Your task to perform on an android device: check out phone information Image 0: 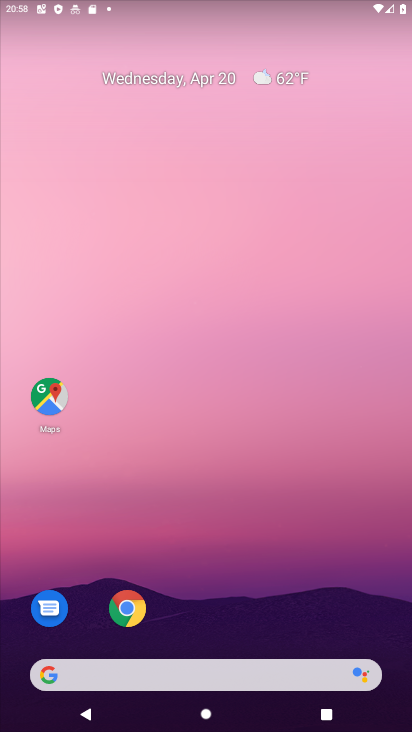
Step 0: click (251, 36)
Your task to perform on an android device: check out phone information Image 1: 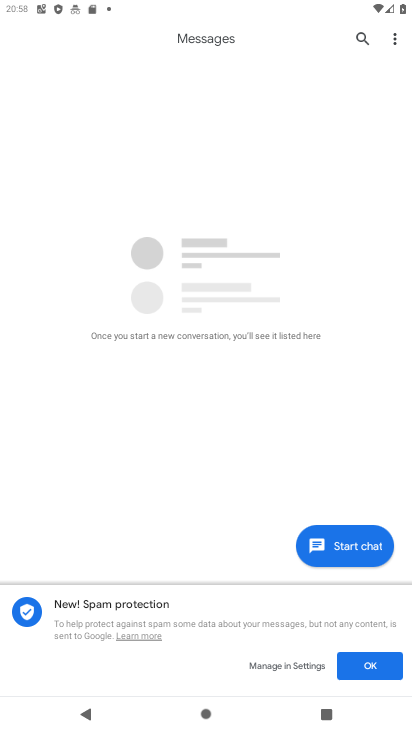
Step 1: press home button
Your task to perform on an android device: check out phone information Image 2: 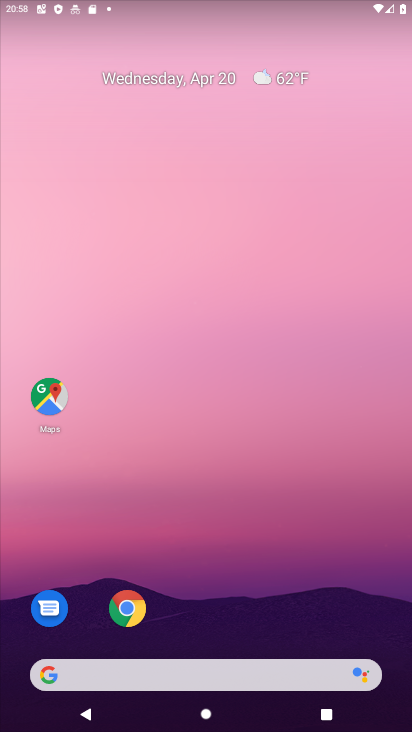
Step 2: drag from (277, 486) to (197, 155)
Your task to perform on an android device: check out phone information Image 3: 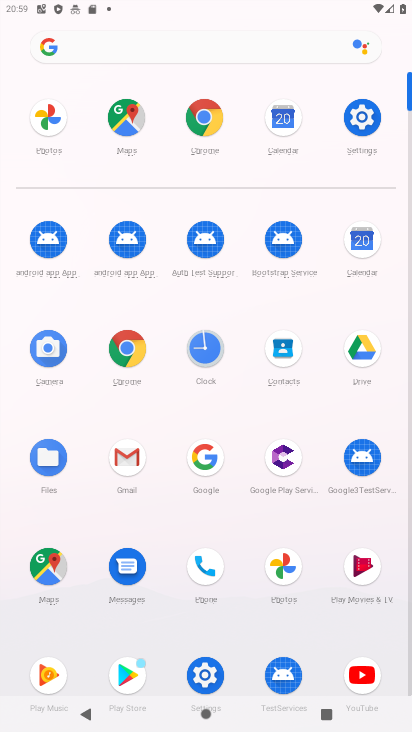
Step 3: click (205, 577)
Your task to perform on an android device: check out phone information Image 4: 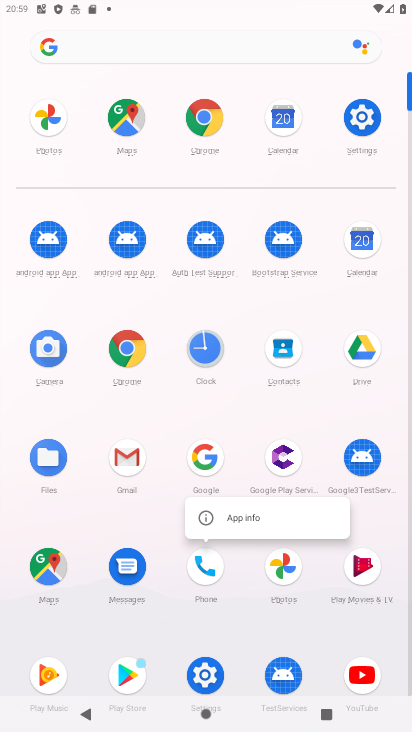
Step 4: click (213, 510)
Your task to perform on an android device: check out phone information Image 5: 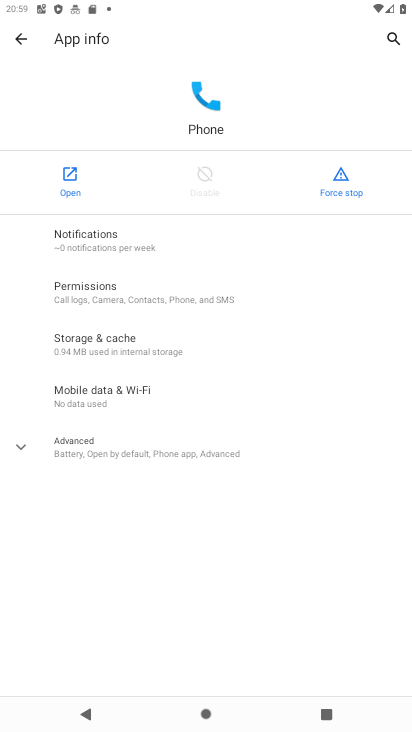
Step 5: click (118, 234)
Your task to perform on an android device: check out phone information Image 6: 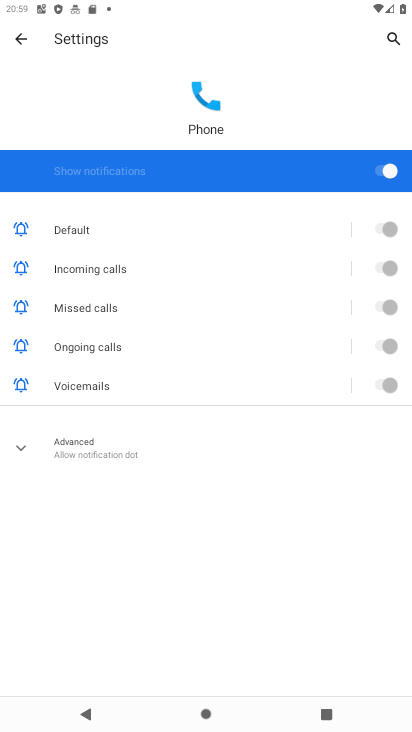
Step 6: task complete